Your task to perform on an android device: Open privacy settings Image 0: 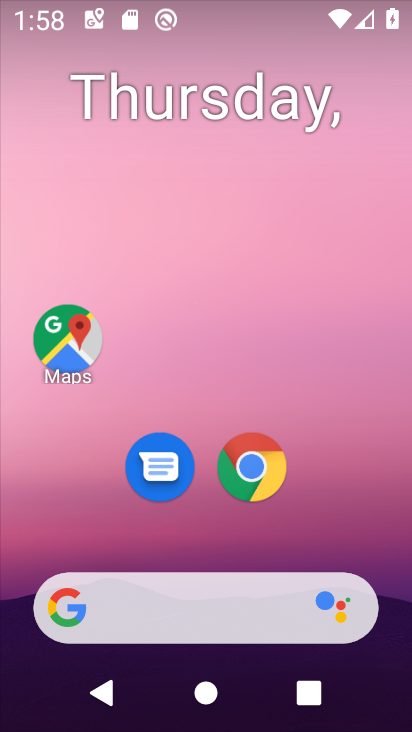
Step 0: drag from (204, 538) to (198, 1)
Your task to perform on an android device: Open privacy settings Image 1: 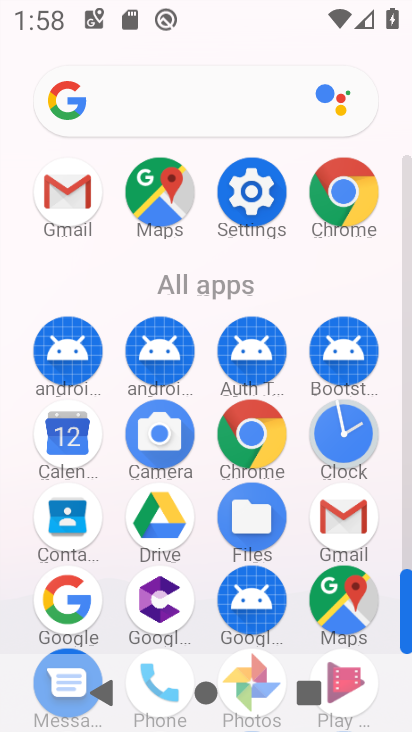
Step 1: click (258, 196)
Your task to perform on an android device: Open privacy settings Image 2: 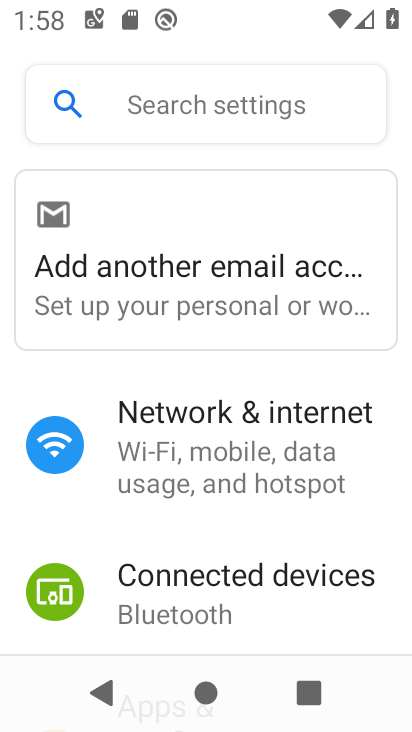
Step 2: drag from (135, 547) to (105, 5)
Your task to perform on an android device: Open privacy settings Image 3: 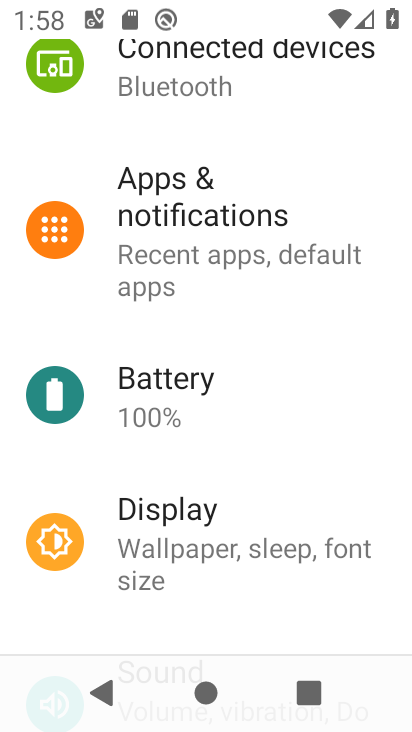
Step 3: drag from (193, 554) to (161, 103)
Your task to perform on an android device: Open privacy settings Image 4: 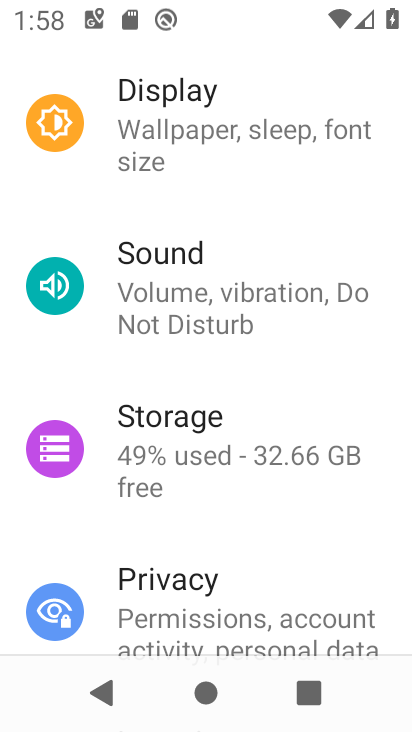
Step 4: click (170, 578)
Your task to perform on an android device: Open privacy settings Image 5: 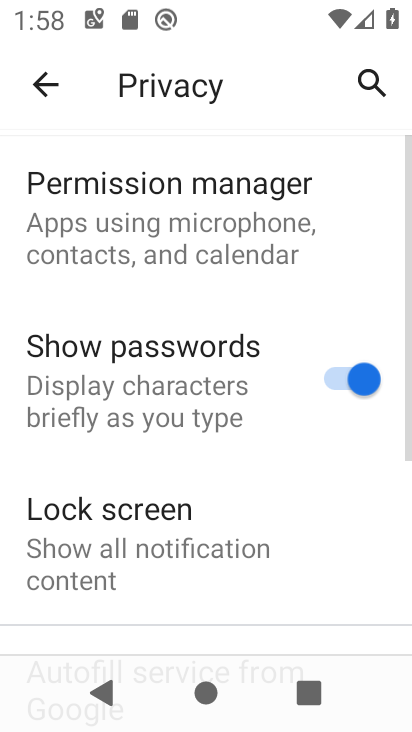
Step 5: task complete